Your task to perform on an android device: turn on the 12-hour format for clock Image 0: 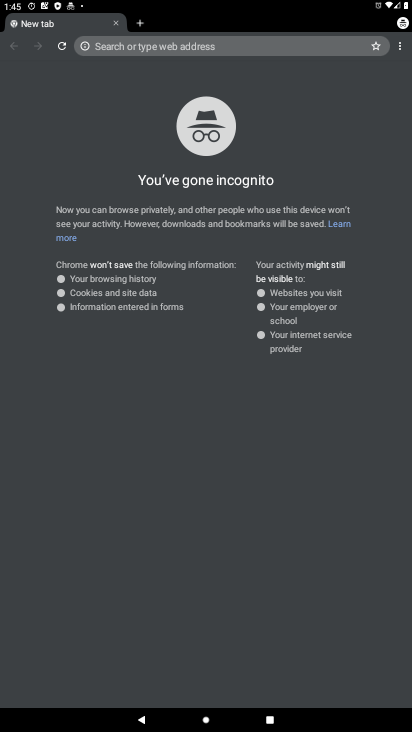
Step 0: press home button
Your task to perform on an android device: turn on the 12-hour format for clock Image 1: 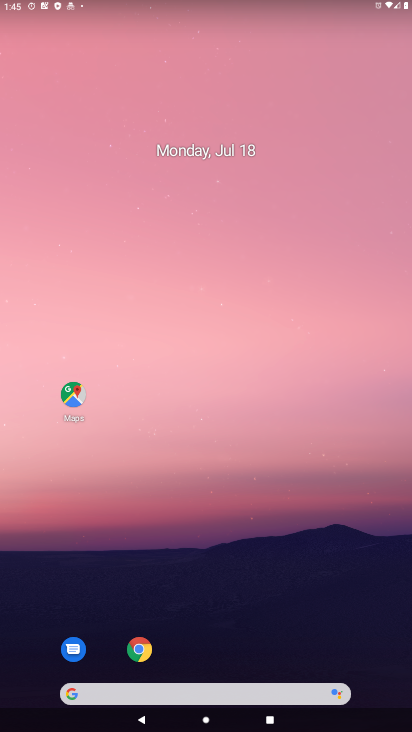
Step 1: drag from (224, 683) to (161, 28)
Your task to perform on an android device: turn on the 12-hour format for clock Image 2: 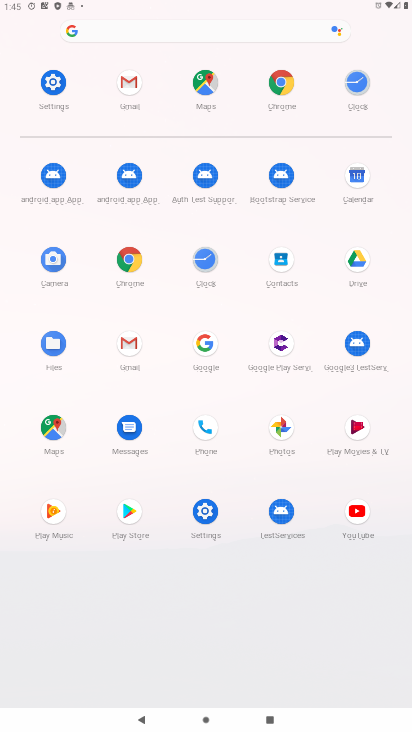
Step 2: click (217, 266)
Your task to perform on an android device: turn on the 12-hour format for clock Image 3: 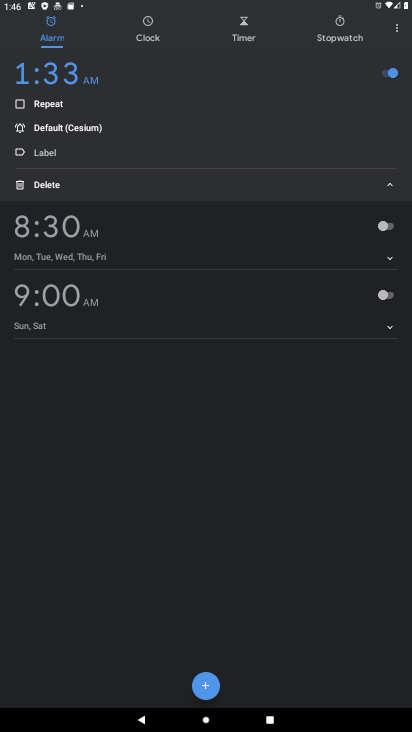
Step 3: click (392, 34)
Your task to perform on an android device: turn on the 12-hour format for clock Image 4: 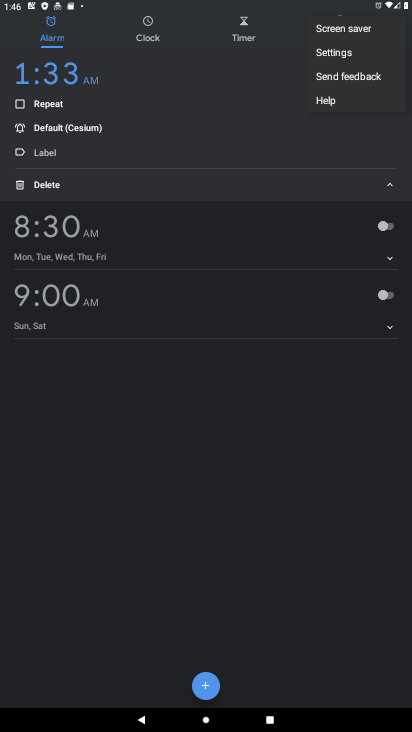
Step 4: click (323, 54)
Your task to perform on an android device: turn on the 12-hour format for clock Image 5: 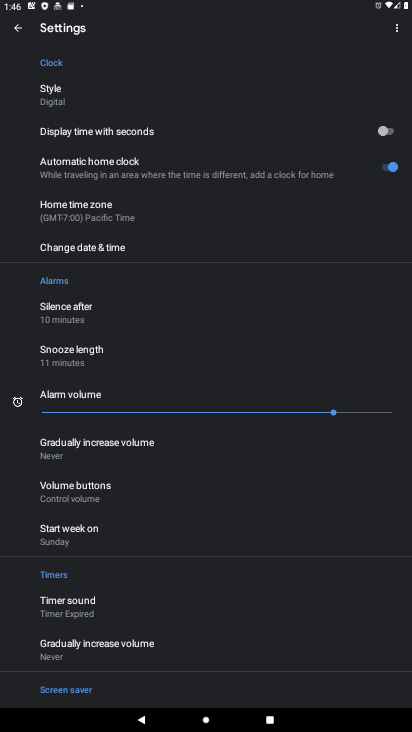
Step 5: click (97, 248)
Your task to perform on an android device: turn on the 12-hour format for clock Image 6: 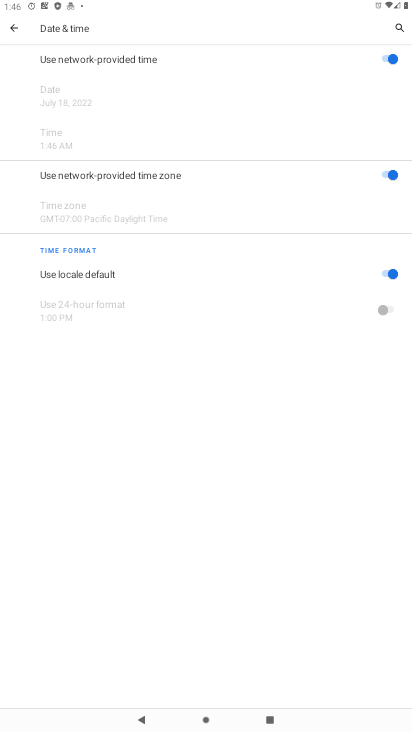
Step 6: task complete